Your task to perform on an android device: delete a single message in the gmail app Image 0: 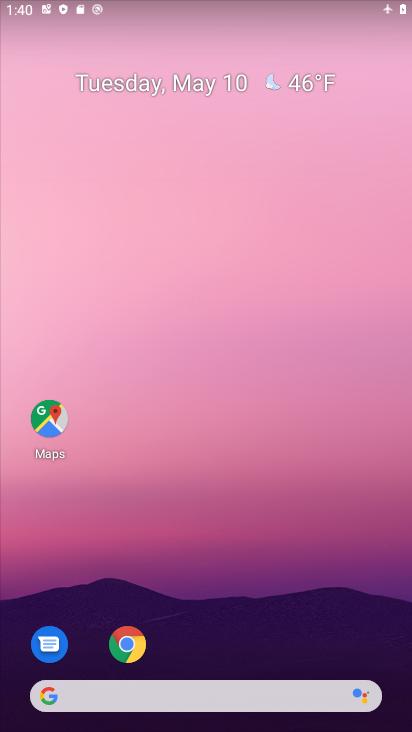
Step 0: drag from (269, 667) to (274, 208)
Your task to perform on an android device: delete a single message in the gmail app Image 1: 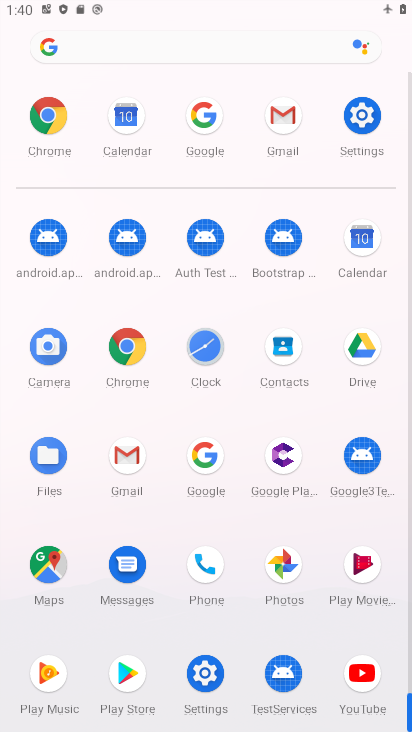
Step 1: click (139, 475)
Your task to perform on an android device: delete a single message in the gmail app Image 2: 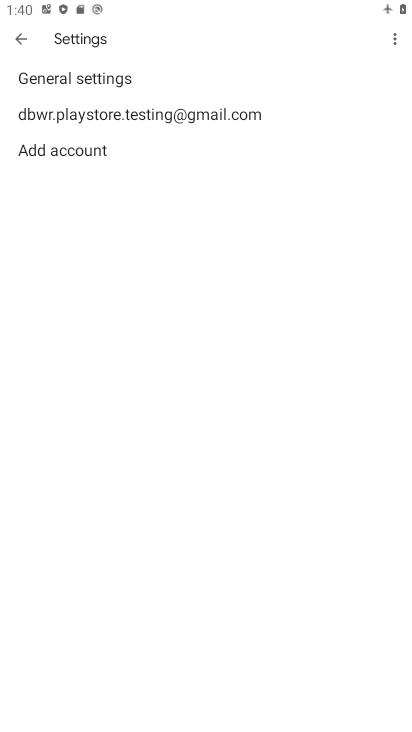
Step 2: press back button
Your task to perform on an android device: delete a single message in the gmail app Image 3: 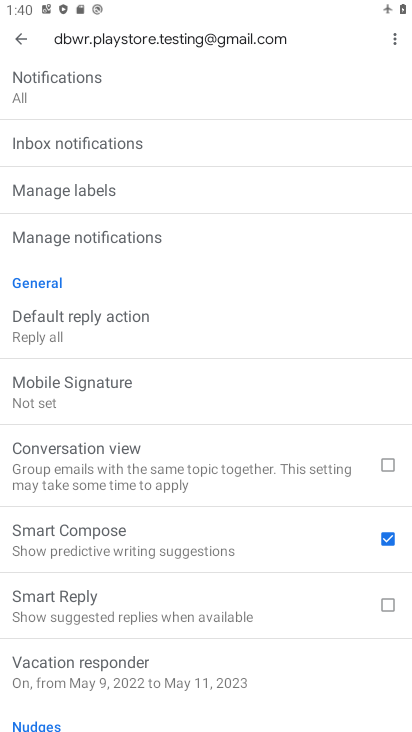
Step 3: press back button
Your task to perform on an android device: delete a single message in the gmail app Image 4: 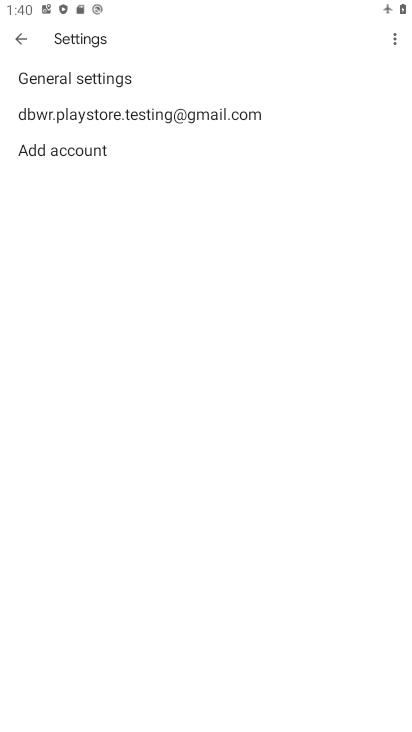
Step 4: press back button
Your task to perform on an android device: delete a single message in the gmail app Image 5: 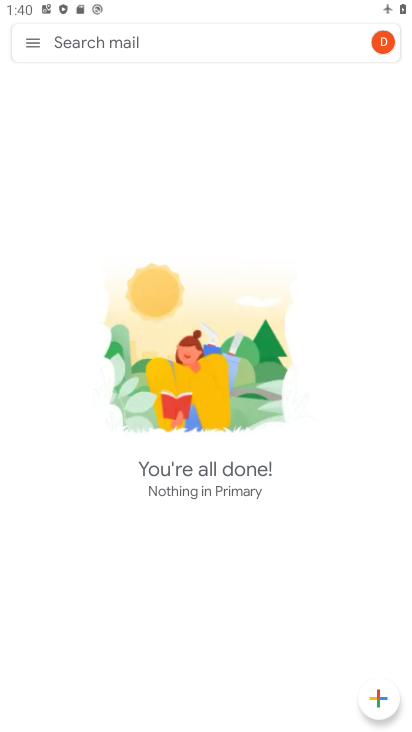
Step 5: click (40, 54)
Your task to perform on an android device: delete a single message in the gmail app Image 6: 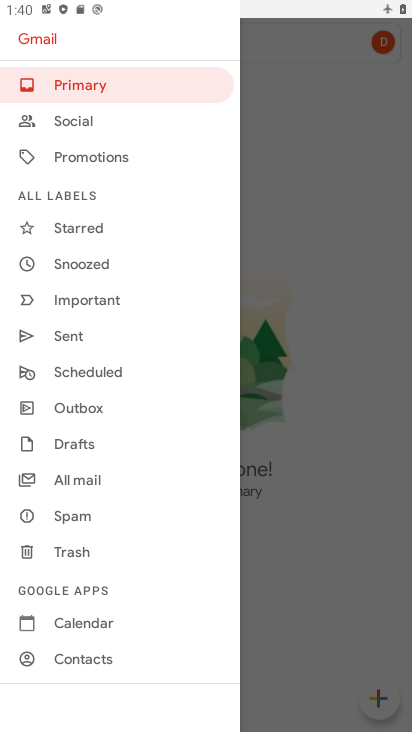
Step 6: click (80, 493)
Your task to perform on an android device: delete a single message in the gmail app Image 7: 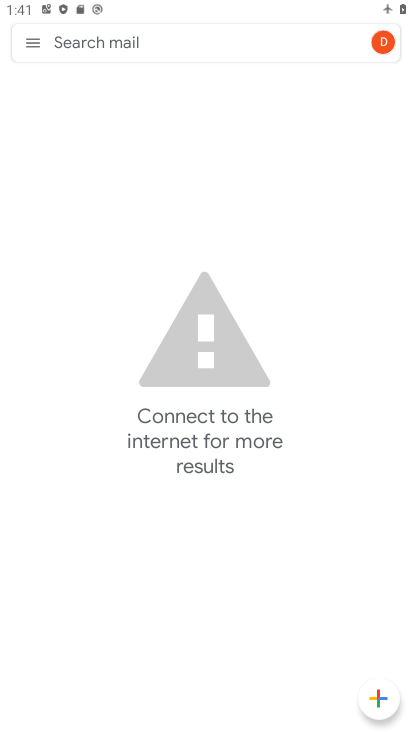
Step 7: task complete